Your task to perform on an android device: Toggle the flashlight Image 0: 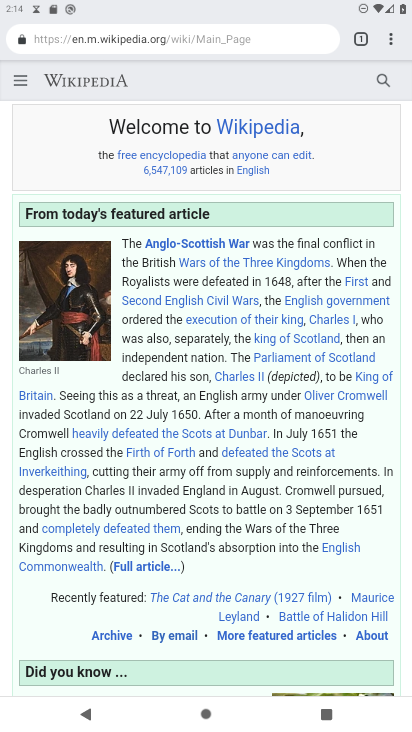
Step 0: press home button
Your task to perform on an android device: Toggle the flashlight Image 1: 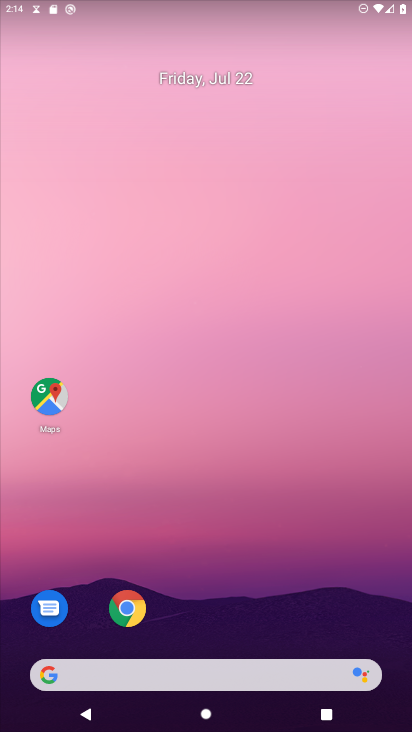
Step 1: drag from (258, 620) to (321, 3)
Your task to perform on an android device: Toggle the flashlight Image 2: 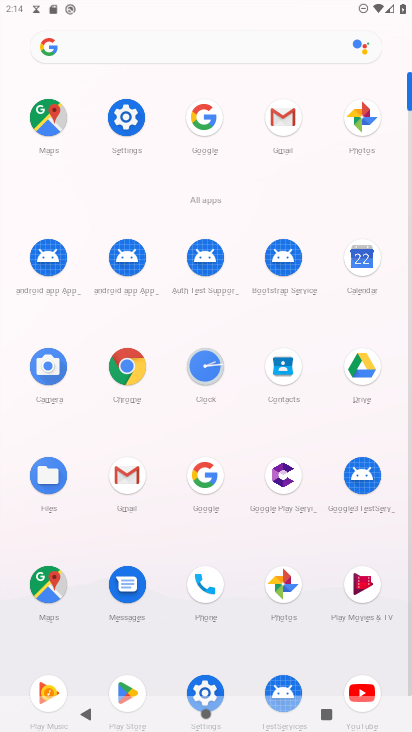
Step 2: click (202, 685)
Your task to perform on an android device: Toggle the flashlight Image 3: 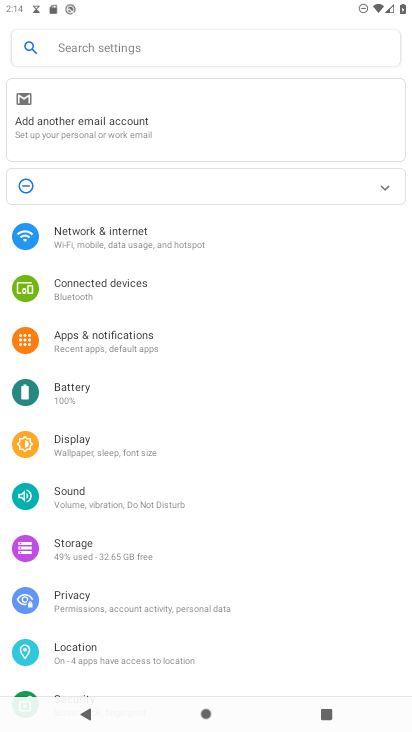
Step 3: task complete